Your task to perform on an android device: turn notification dots off Image 0: 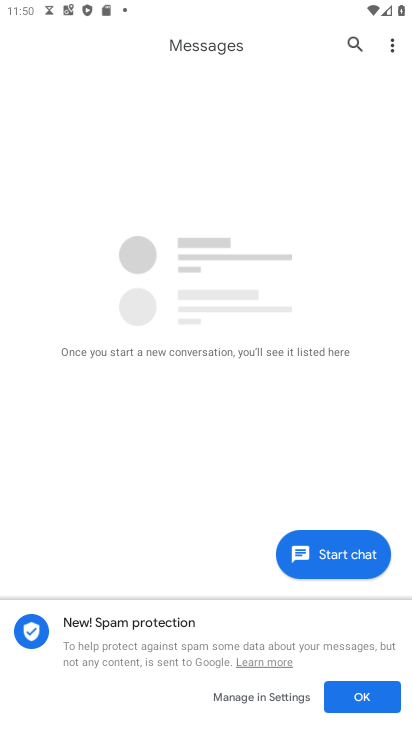
Step 0: press home button
Your task to perform on an android device: turn notification dots off Image 1: 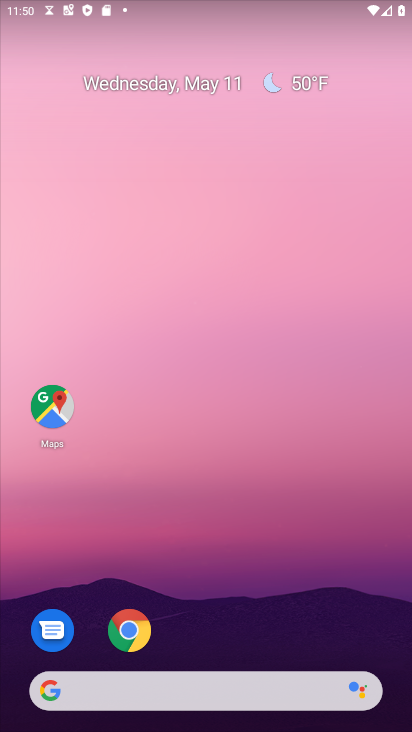
Step 1: drag from (216, 729) to (164, 197)
Your task to perform on an android device: turn notification dots off Image 2: 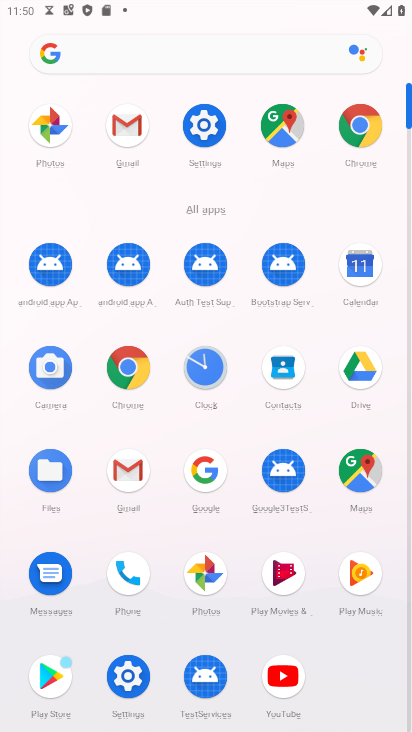
Step 2: click (203, 121)
Your task to perform on an android device: turn notification dots off Image 3: 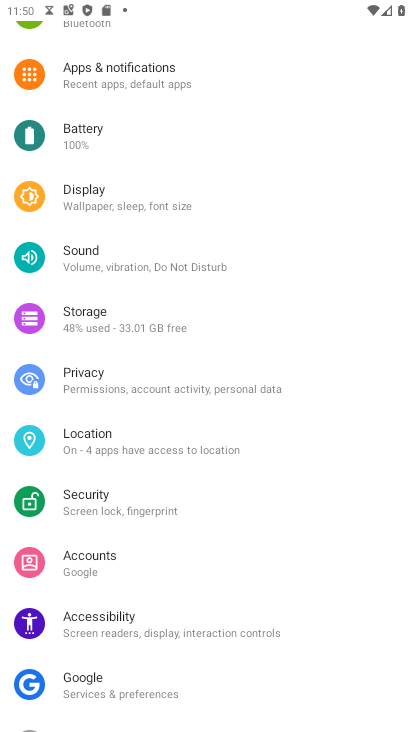
Step 3: click (123, 81)
Your task to perform on an android device: turn notification dots off Image 4: 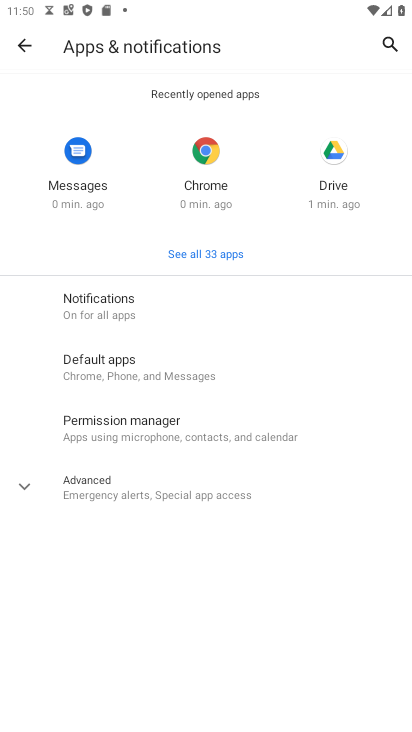
Step 4: click (98, 315)
Your task to perform on an android device: turn notification dots off Image 5: 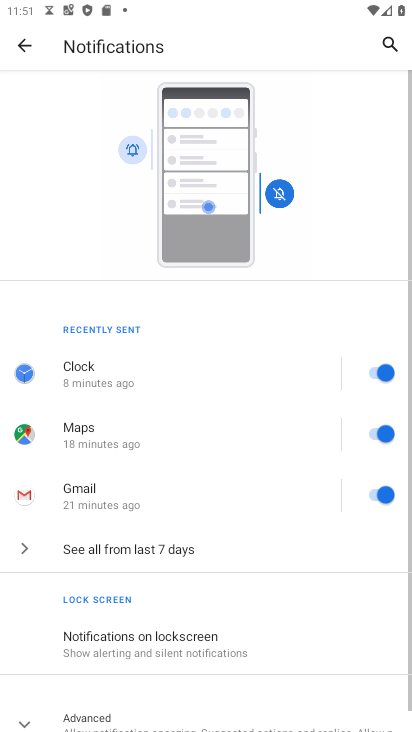
Step 5: drag from (172, 666) to (138, 356)
Your task to perform on an android device: turn notification dots off Image 6: 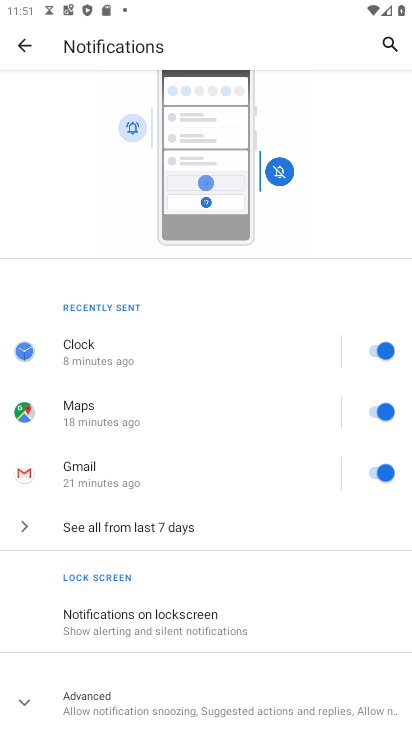
Step 6: click (105, 696)
Your task to perform on an android device: turn notification dots off Image 7: 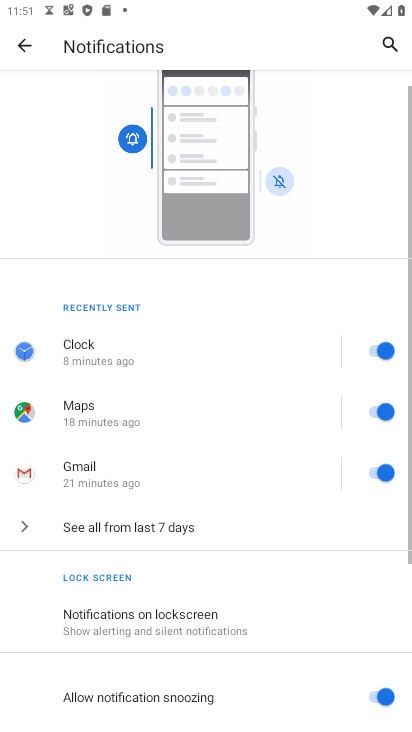
Step 7: drag from (238, 684) to (184, 294)
Your task to perform on an android device: turn notification dots off Image 8: 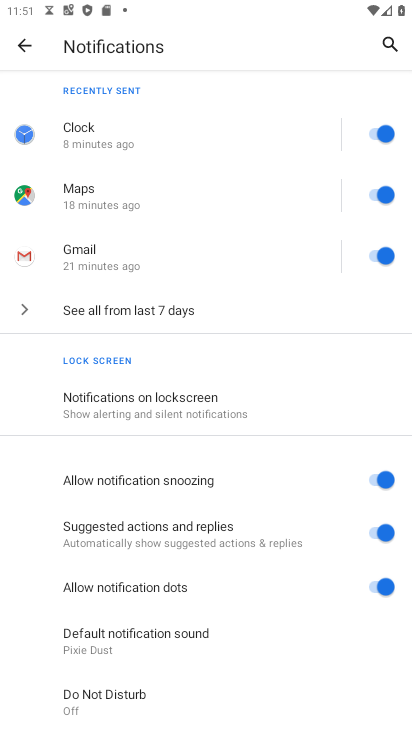
Step 8: click (375, 586)
Your task to perform on an android device: turn notification dots off Image 9: 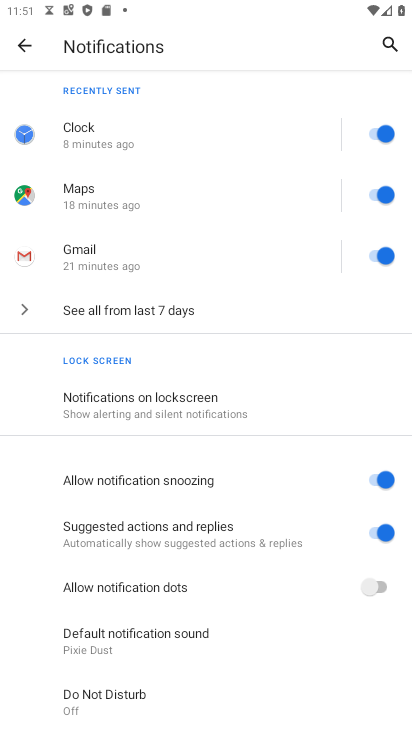
Step 9: task complete